Your task to perform on an android device: delete the emails in spam in the gmail app Image 0: 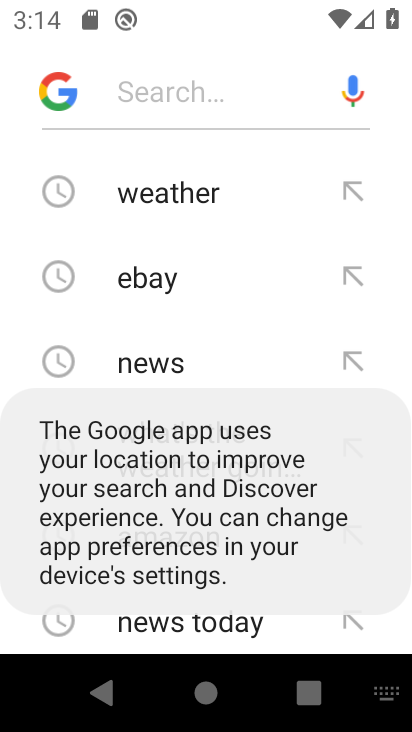
Step 0: press home button
Your task to perform on an android device: delete the emails in spam in the gmail app Image 1: 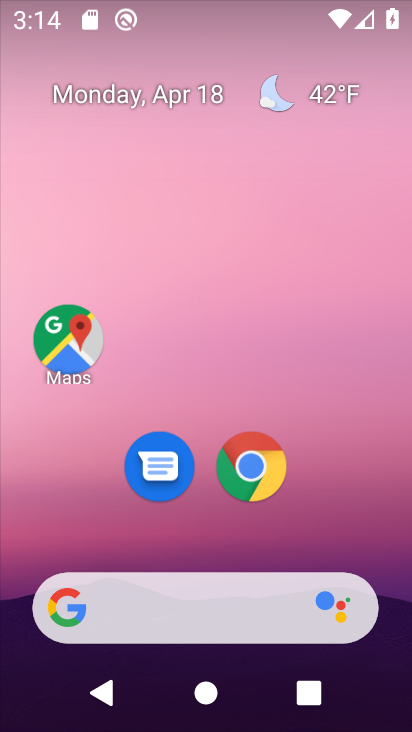
Step 1: drag from (324, 475) to (349, 30)
Your task to perform on an android device: delete the emails in spam in the gmail app Image 2: 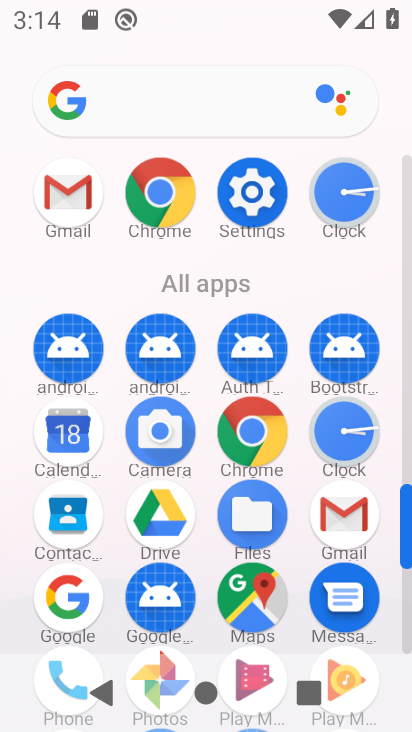
Step 2: click (346, 521)
Your task to perform on an android device: delete the emails in spam in the gmail app Image 3: 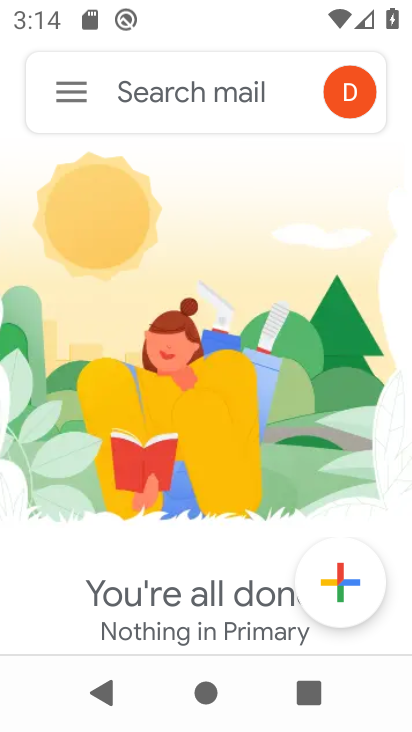
Step 3: drag from (252, 554) to (263, 231)
Your task to perform on an android device: delete the emails in spam in the gmail app Image 4: 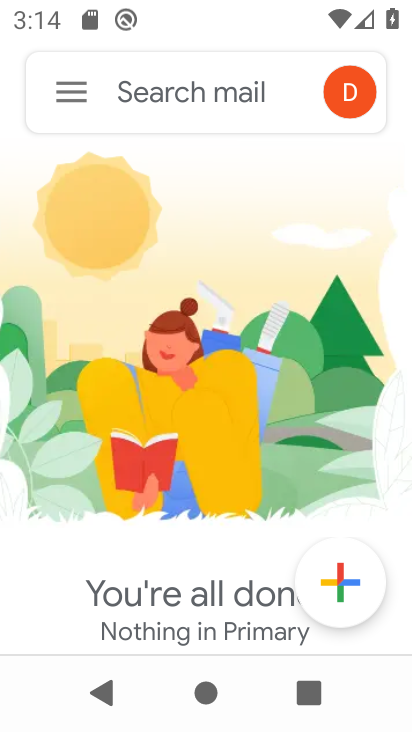
Step 4: click (80, 95)
Your task to perform on an android device: delete the emails in spam in the gmail app Image 5: 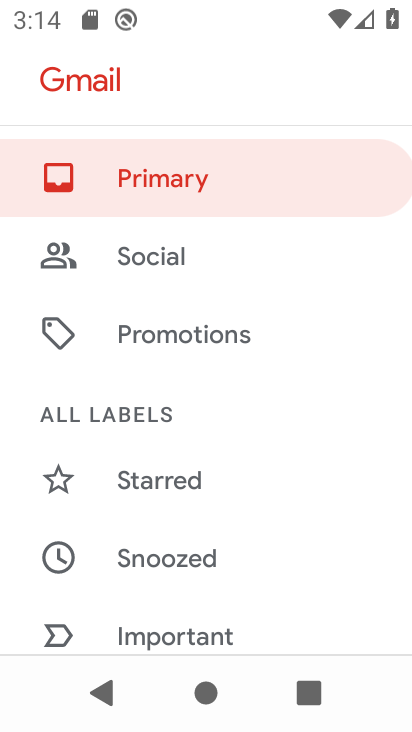
Step 5: drag from (185, 622) to (181, 313)
Your task to perform on an android device: delete the emails in spam in the gmail app Image 6: 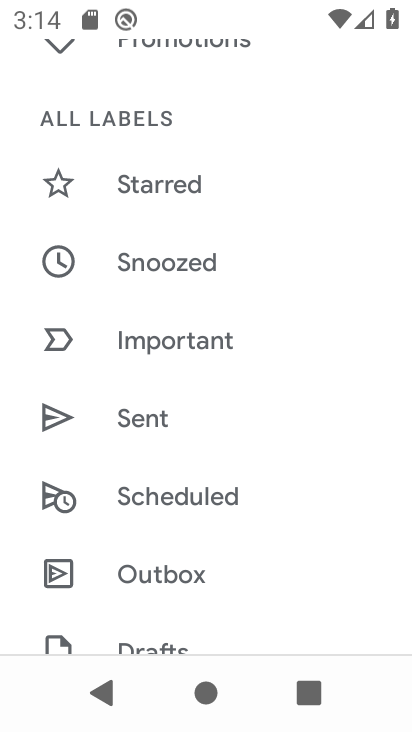
Step 6: drag from (195, 594) to (208, 217)
Your task to perform on an android device: delete the emails in spam in the gmail app Image 7: 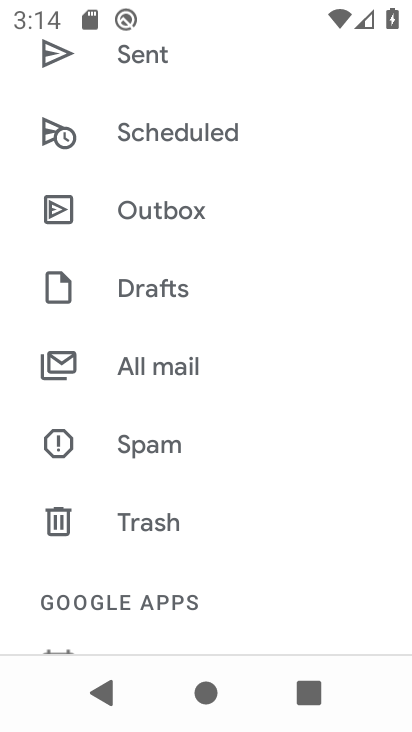
Step 7: click (152, 431)
Your task to perform on an android device: delete the emails in spam in the gmail app Image 8: 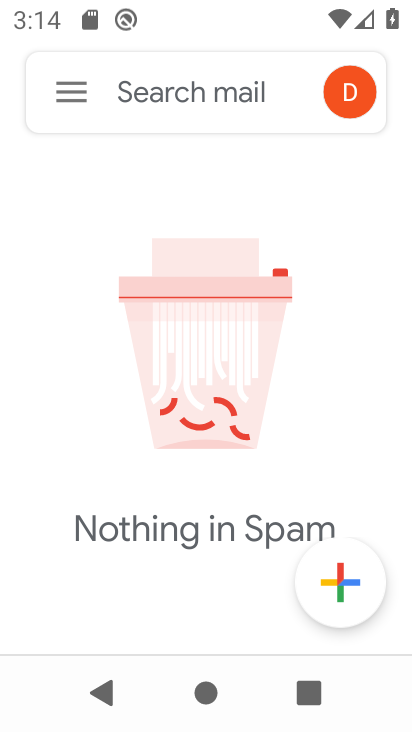
Step 8: task complete